Your task to perform on an android device: What's on my calendar tomorrow? Image 0: 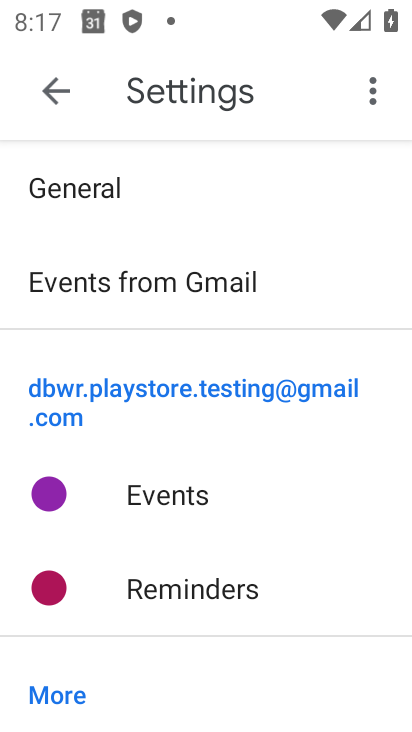
Step 0: press home button
Your task to perform on an android device: What's on my calendar tomorrow? Image 1: 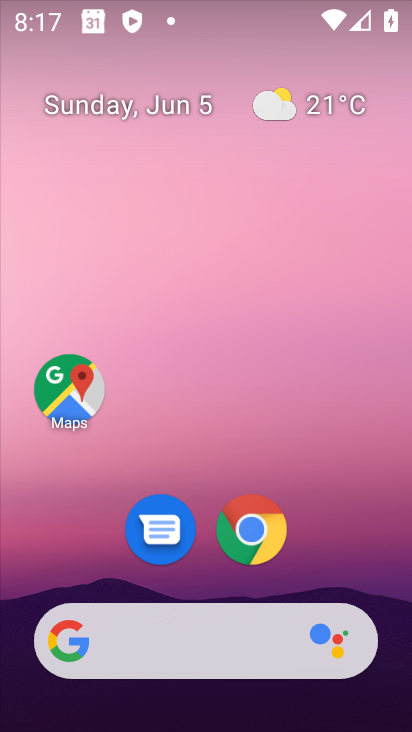
Step 1: drag from (220, 528) to (255, 70)
Your task to perform on an android device: What's on my calendar tomorrow? Image 2: 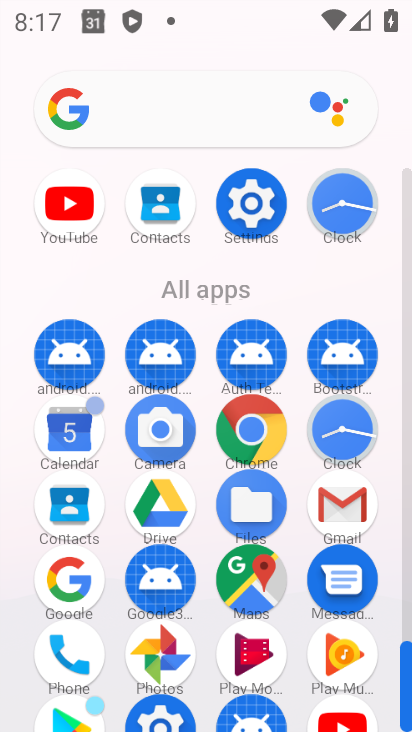
Step 2: click (81, 433)
Your task to perform on an android device: What's on my calendar tomorrow? Image 3: 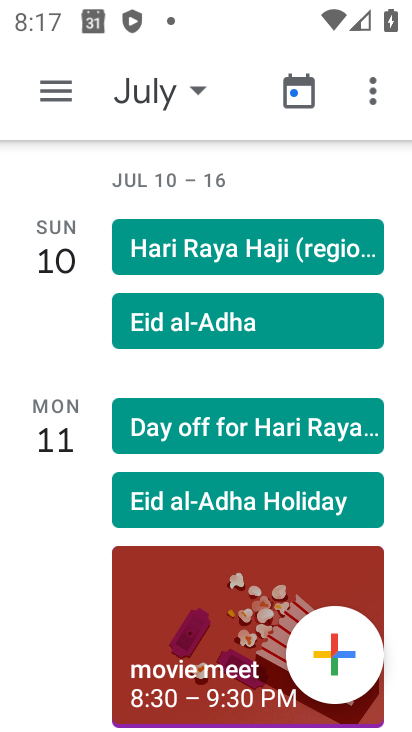
Step 3: click (180, 81)
Your task to perform on an android device: What's on my calendar tomorrow? Image 4: 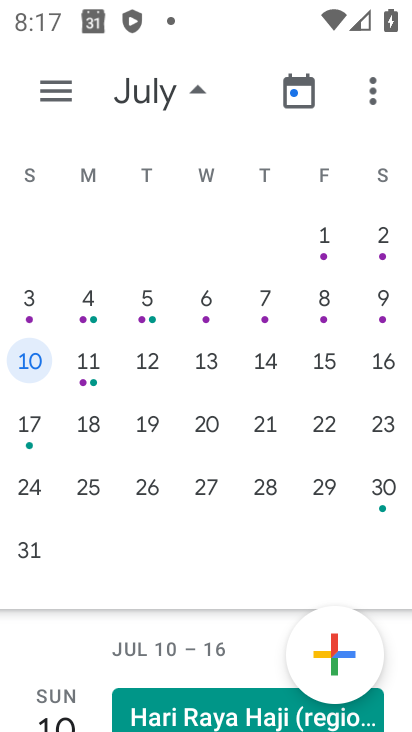
Step 4: drag from (86, 278) to (401, 474)
Your task to perform on an android device: What's on my calendar tomorrow? Image 5: 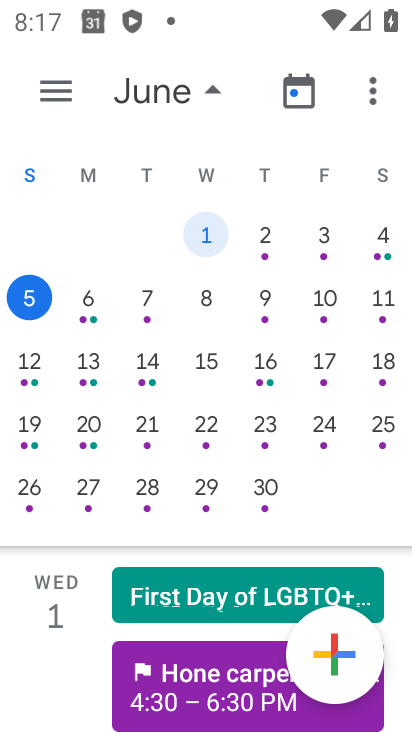
Step 5: click (93, 297)
Your task to perform on an android device: What's on my calendar tomorrow? Image 6: 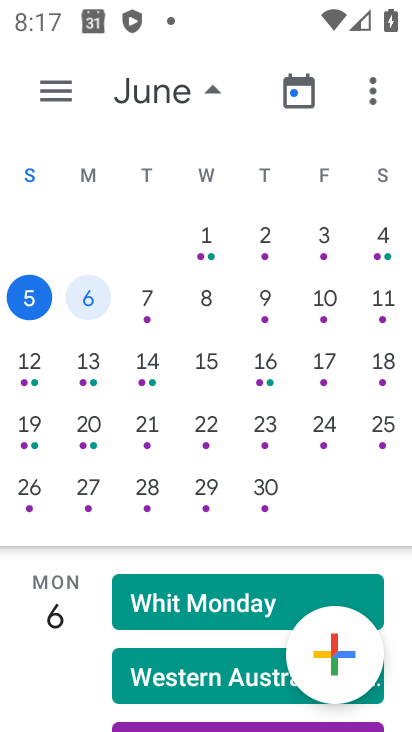
Step 6: task complete